Your task to perform on an android device: turn off sleep mode Image 0: 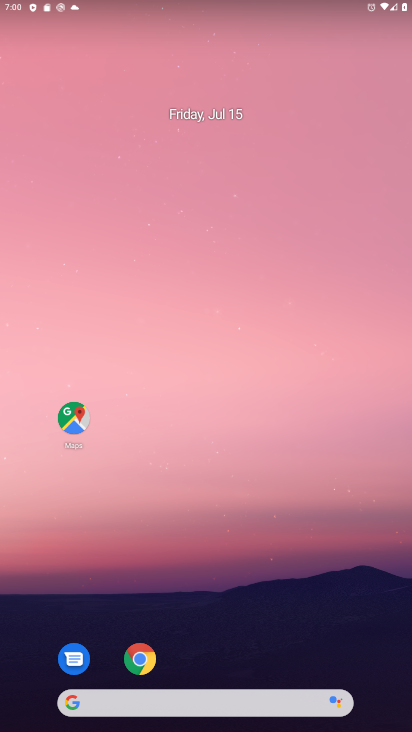
Step 0: drag from (367, 657) to (275, 168)
Your task to perform on an android device: turn off sleep mode Image 1: 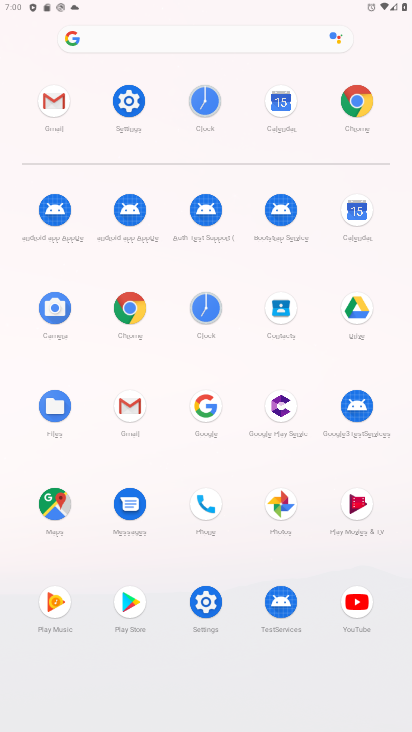
Step 1: click (208, 601)
Your task to perform on an android device: turn off sleep mode Image 2: 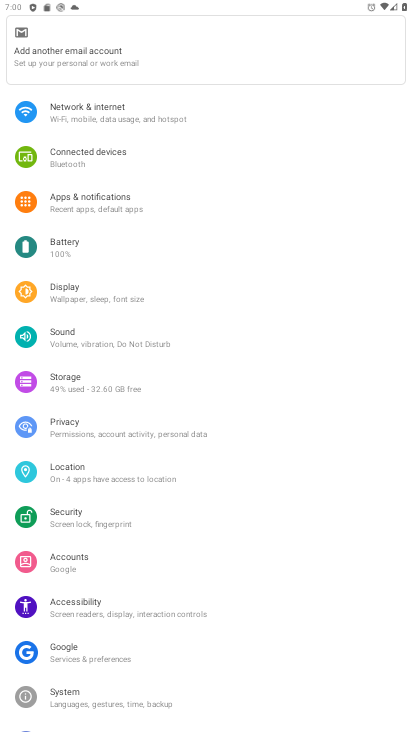
Step 2: click (68, 297)
Your task to perform on an android device: turn off sleep mode Image 3: 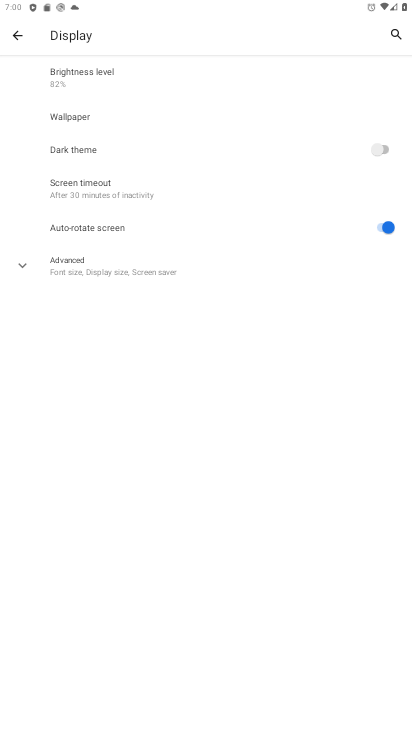
Step 3: click (20, 269)
Your task to perform on an android device: turn off sleep mode Image 4: 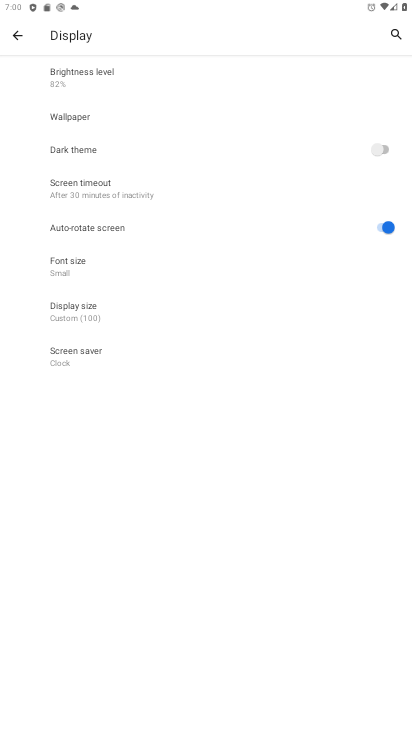
Step 4: task complete